Your task to perform on an android device: Turn on the flashlight Image 0: 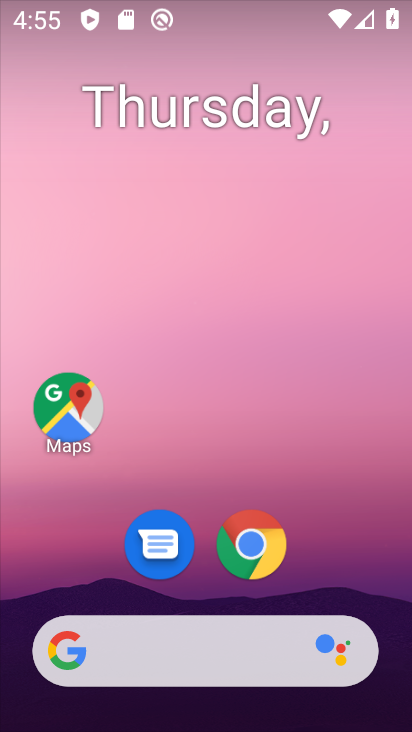
Step 0: drag from (364, 520) to (315, 20)
Your task to perform on an android device: Turn on the flashlight Image 1: 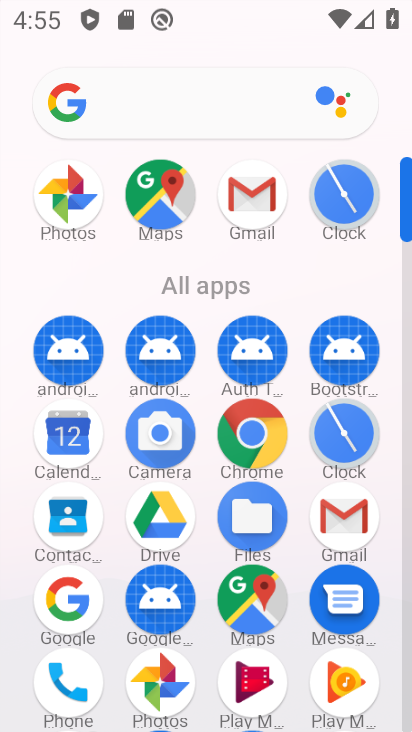
Step 1: drag from (278, 10) to (305, 469)
Your task to perform on an android device: Turn on the flashlight Image 2: 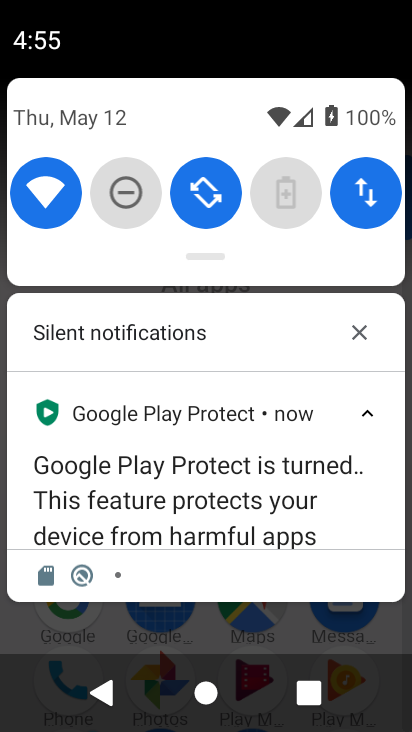
Step 2: drag from (256, 253) to (252, 606)
Your task to perform on an android device: Turn on the flashlight Image 3: 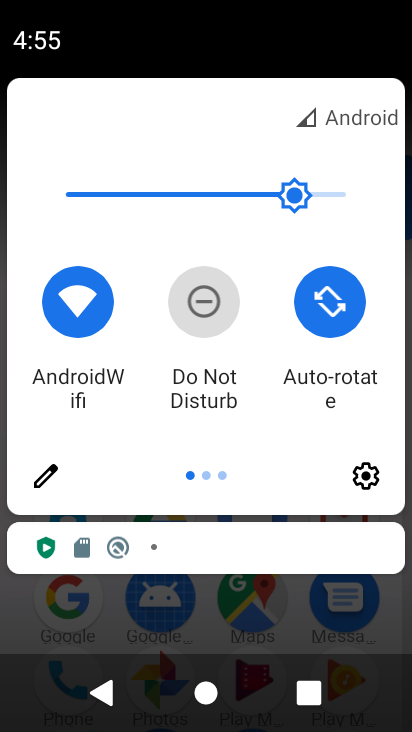
Step 3: click (68, 282)
Your task to perform on an android device: Turn on the flashlight Image 4: 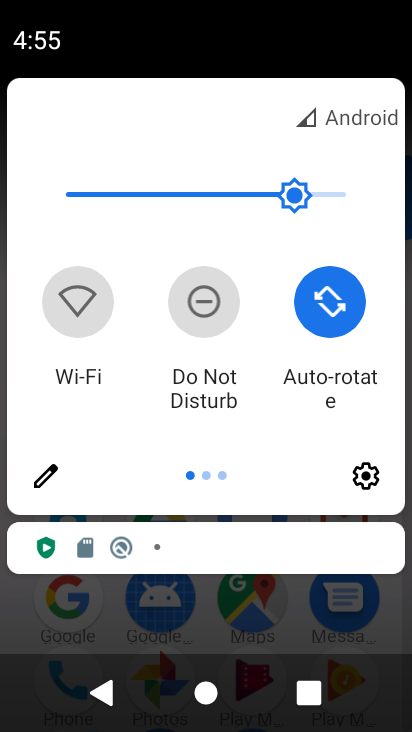
Step 4: drag from (297, 377) to (57, 348)
Your task to perform on an android device: Turn on the flashlight Image 5: 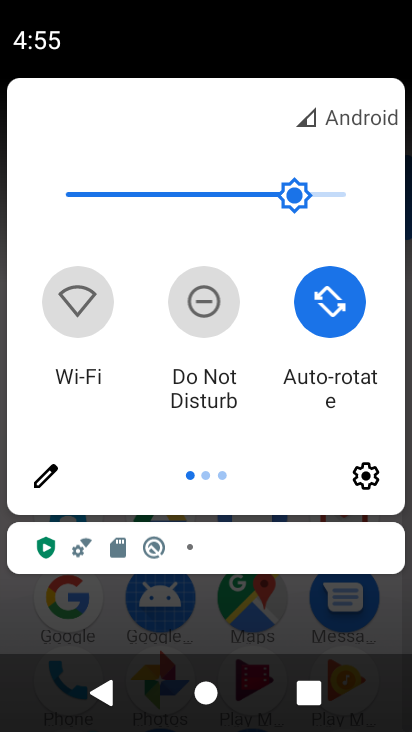
Step 5: drag from (61, 343) to (312, 356)
Your task to perform on an android device: Turn on the flashlight Image 6: 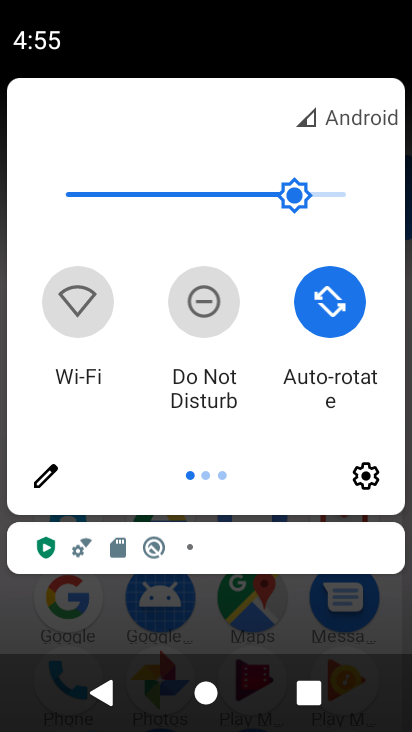
Step 6: click (80, 290)
Your task to perform on an android device: Turn on the flashlight Image 7: 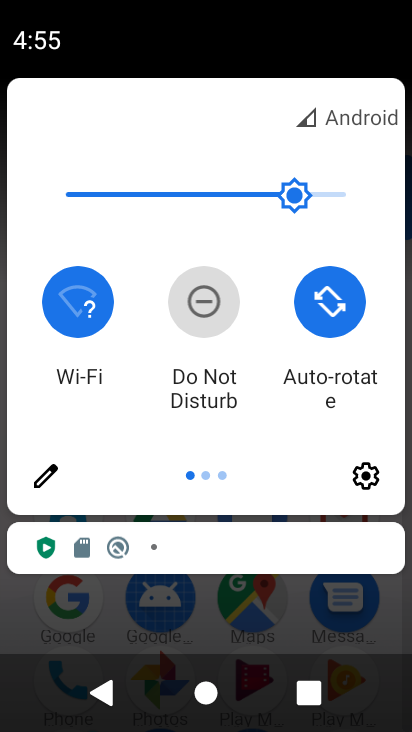
Step 7: task complete